Your task to perform on an android device: Clear the cart on bestbuy.com. Search for apple airpods on bestbuy.com, select the first entry, and add it to the cart. Image 0: 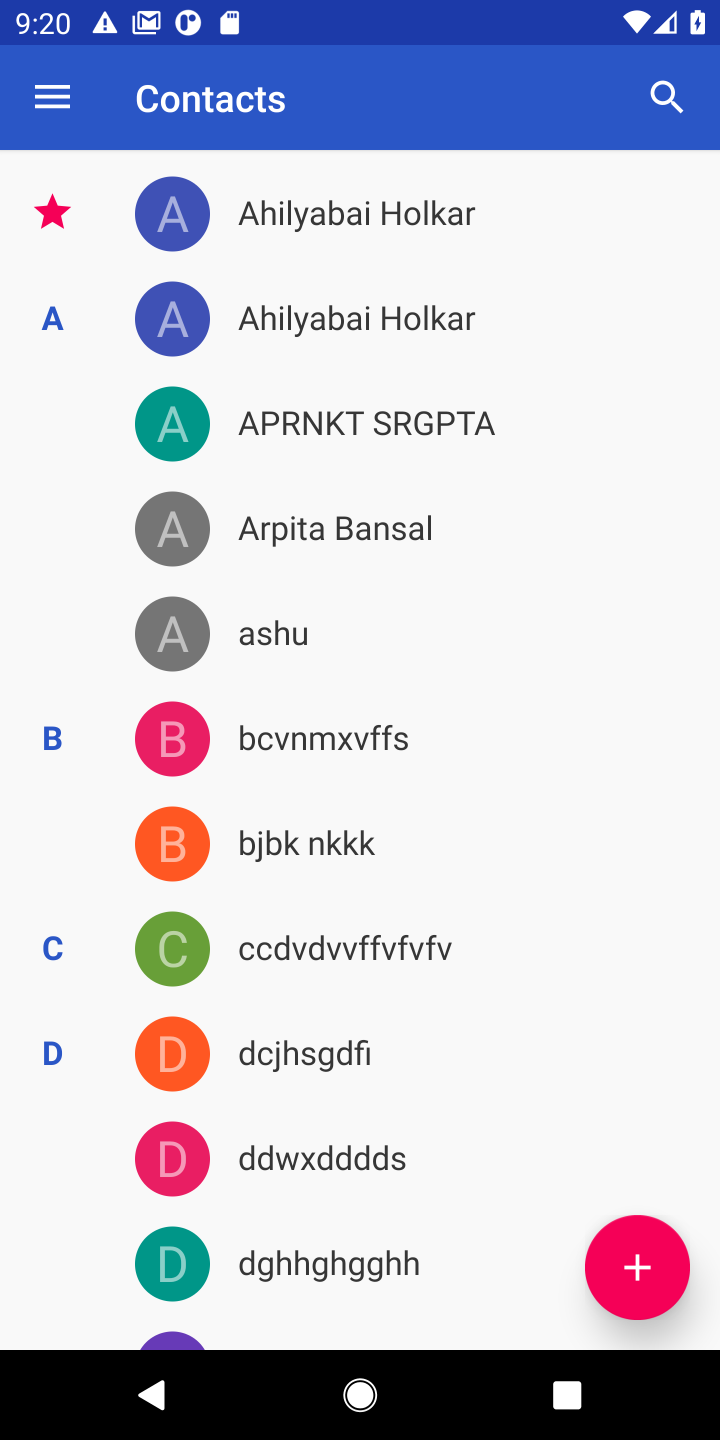
Step 0: press home button
Your task to perform on an android device: Clear the cart on bestbuy.com. Search for apple airpods on bestbuy.com, select the first entry, and add it to the cart. Image 1: 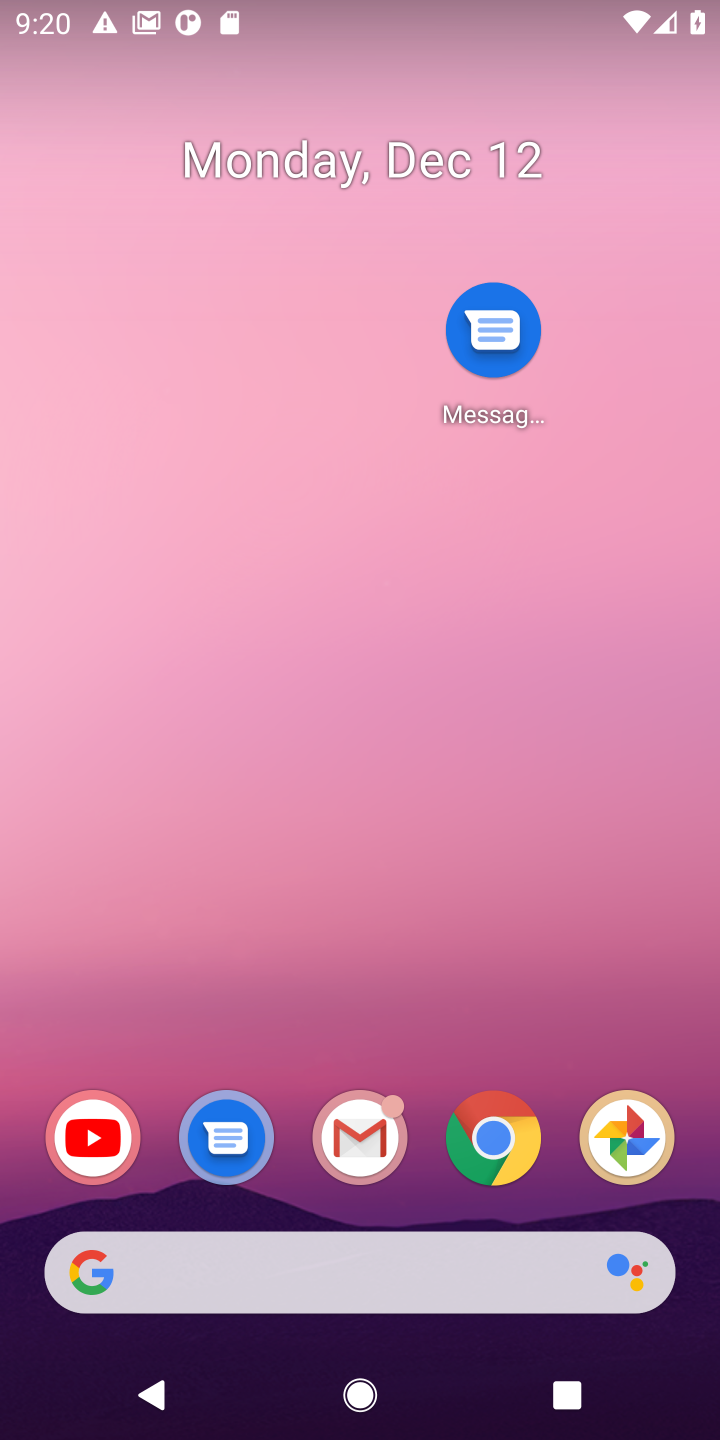
Step 1: drag from (275, 1264) to (275, 216)
Your task to perform on an android device: Clear the cart on bestbuy.com. Search for apple airpods on bestbuy.com, select the first entry, and add it to the cart. Image 2: 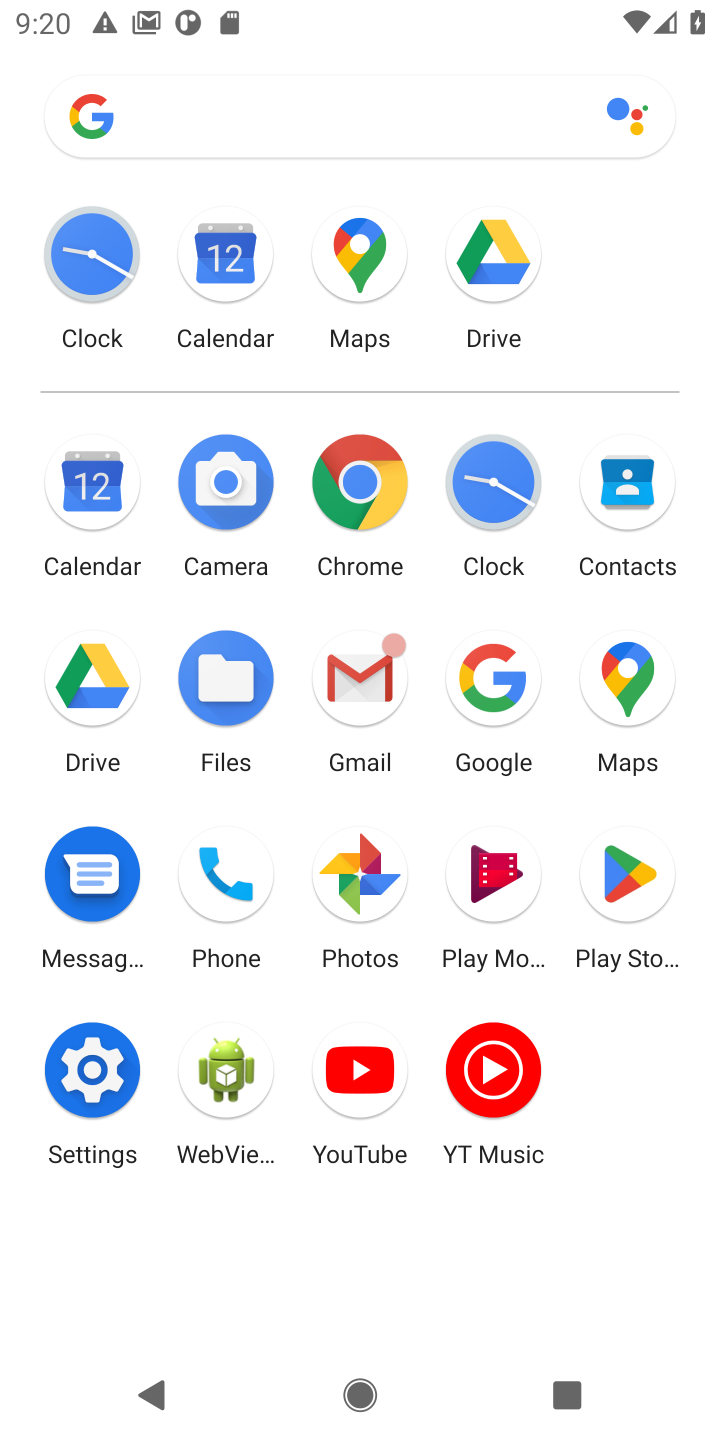
Step 2: click (490, 687)
Your task to perform on an android device: Clear the cart on bestbuy.com. Search for apple airpods on bestbuy.com, select the first entry, and add it to the cart. Image 3: 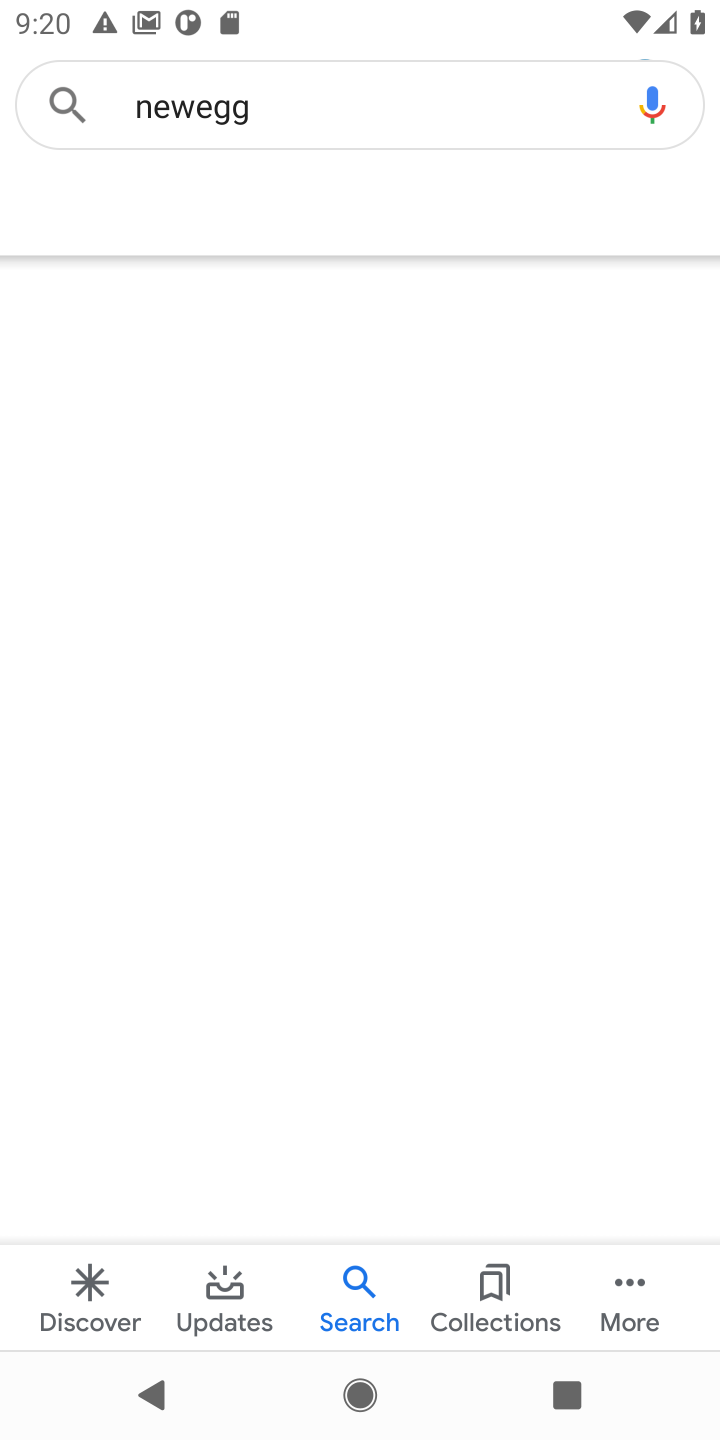
Step 3: click (164, 109)
Your task to perform on an android device: Clear the cart on bestbuy.com. Search for apple airpods on bestbuy.com, select the first entry, and add it to the cart. Image 4: 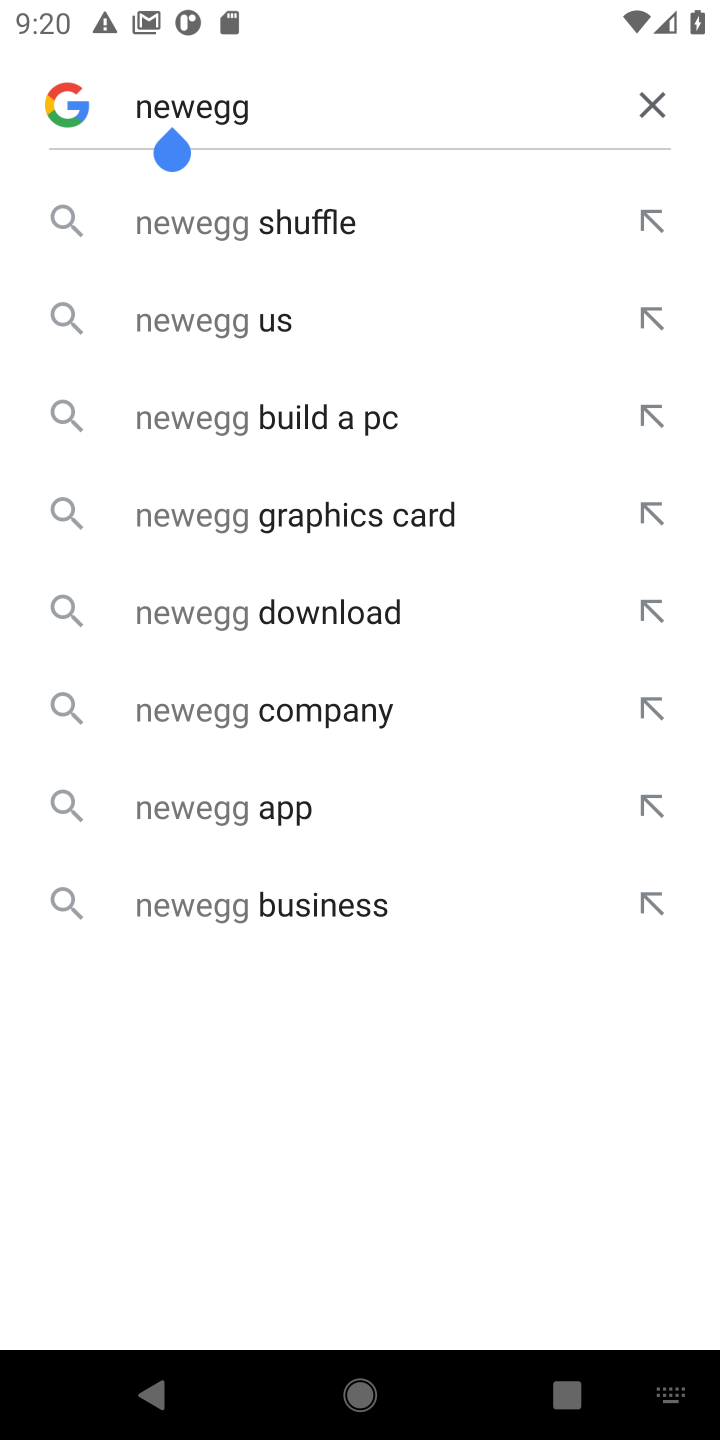
Step 4: click (665, 96)
Your task to perform on an android device: Clear the cart on bestbuy.com. Search for apple airpods on bestbuy.com, select the first entry, and add it to the cart. Image 5: 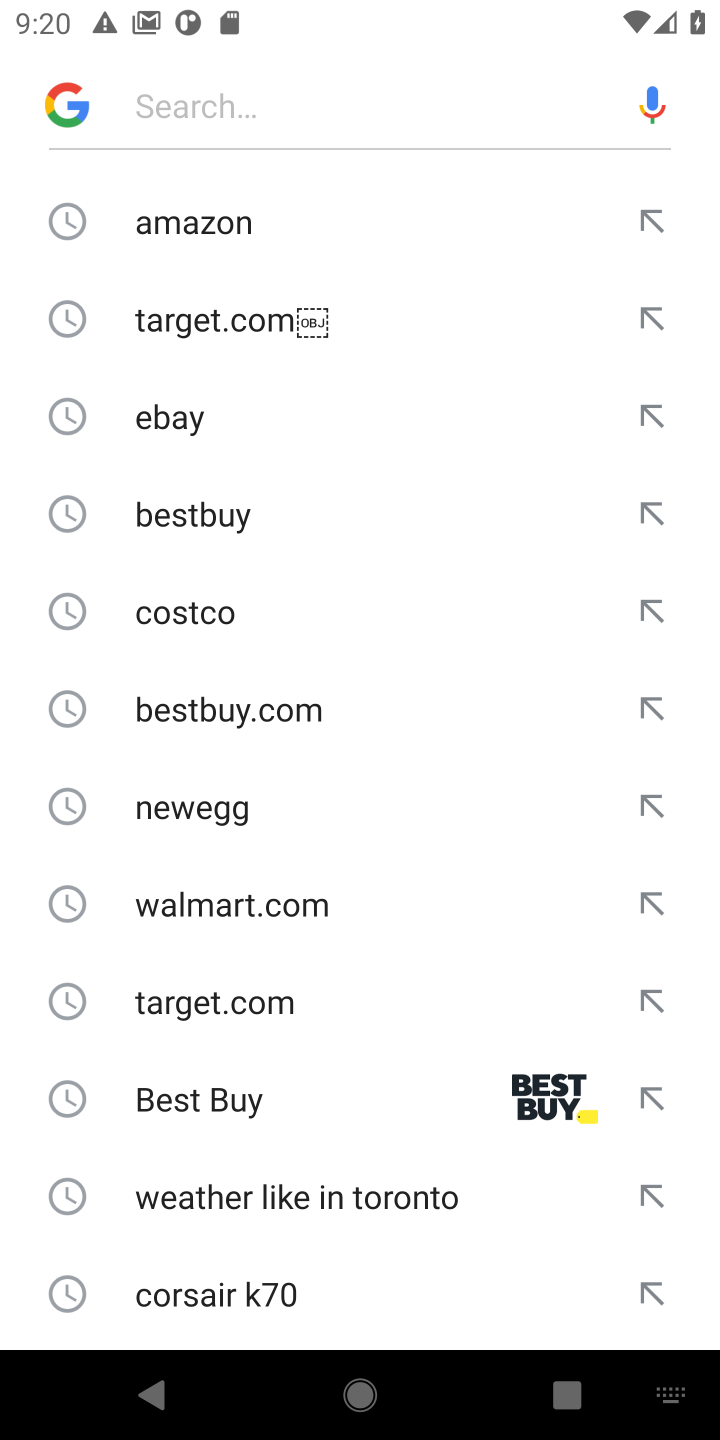
Step 5: click (178, 522)
Your task to perform on an android device: Clear the cart on bestbuy.com. Search for apple airpods on bestbuy.com, select the first entry, and add it to the cart. Image 6: 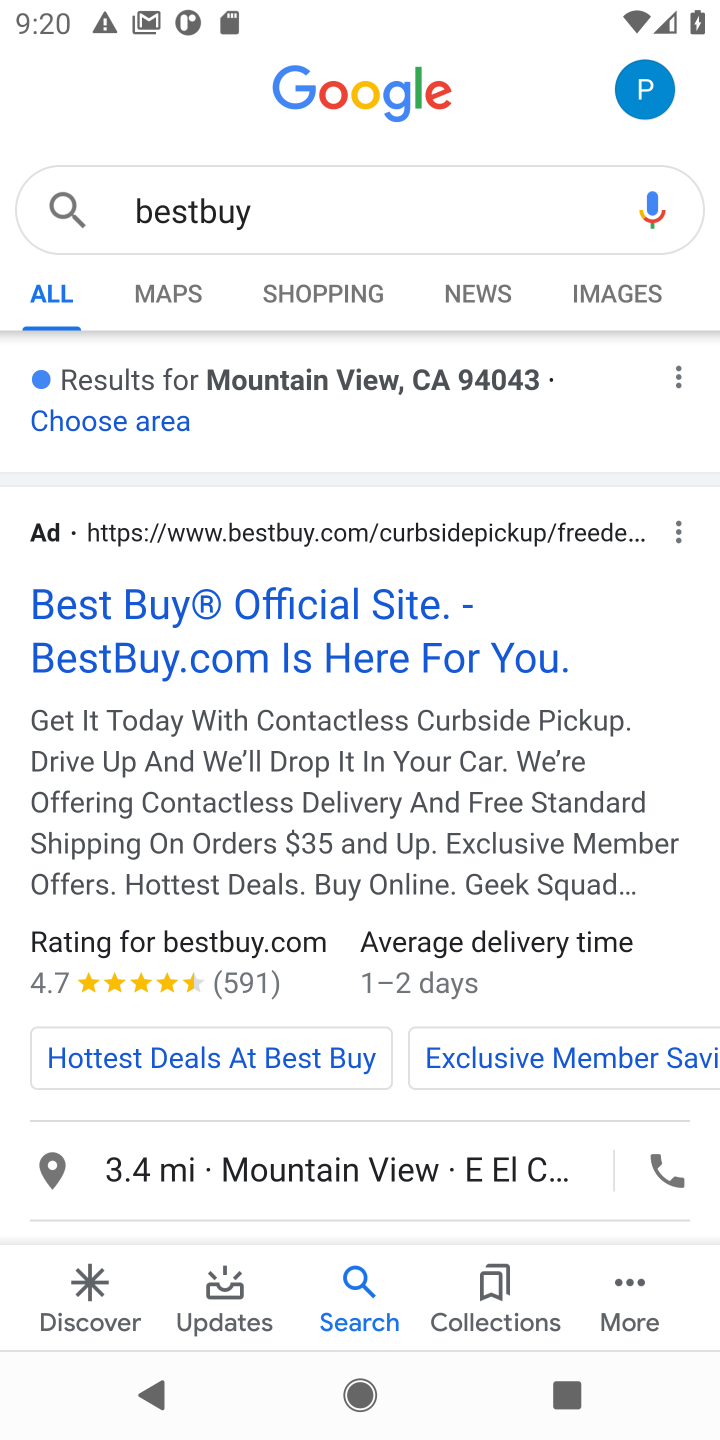
Step 6: click (160, 644)
Your task to perform on an android device: Clear the cart on bestbuy.com. Search for apple airpods on bestbuy.com, select the first entry, and add it to the cart. Image 7: 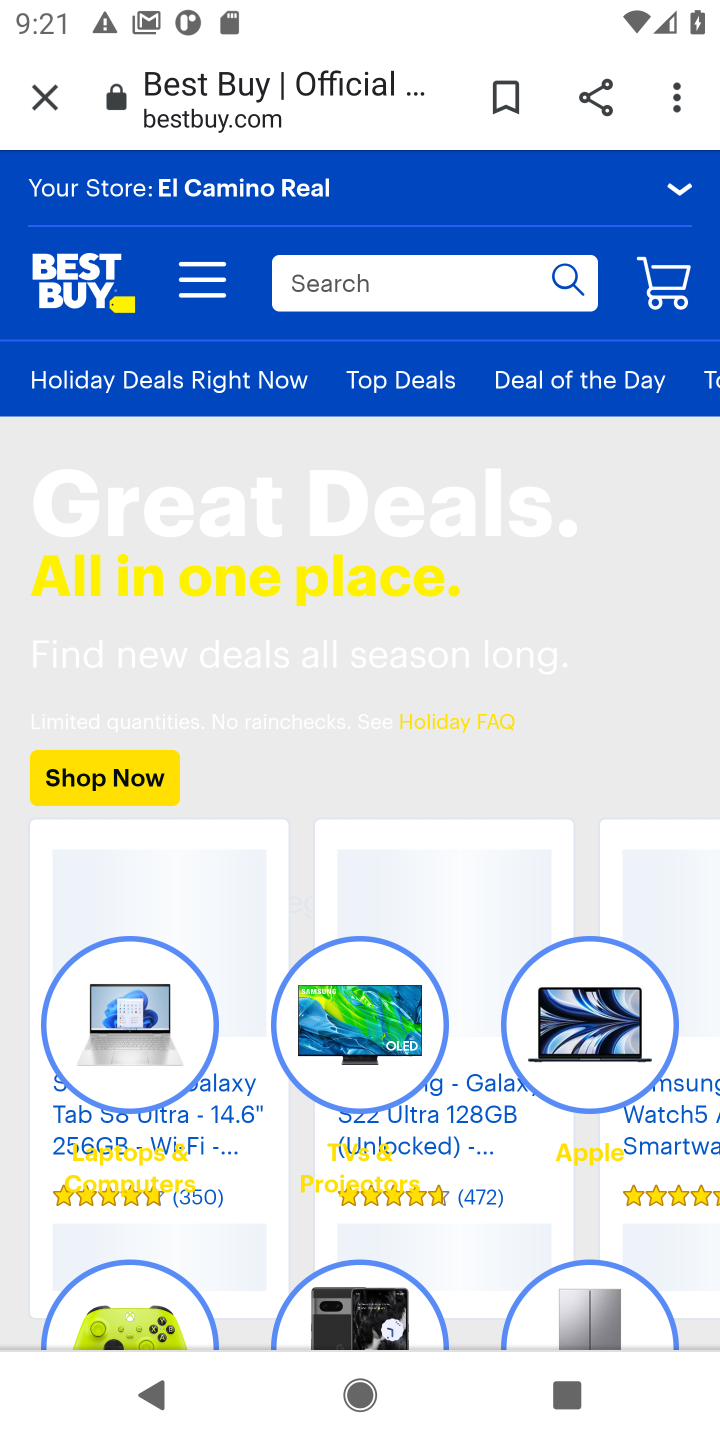
Step 7: click (355, 290)
Your task to perform on an android device: Clear the cart on bestbuy.com. Search for apple airpods on bestbuy.com, select the first entry, and add it to the cart. Image 8: 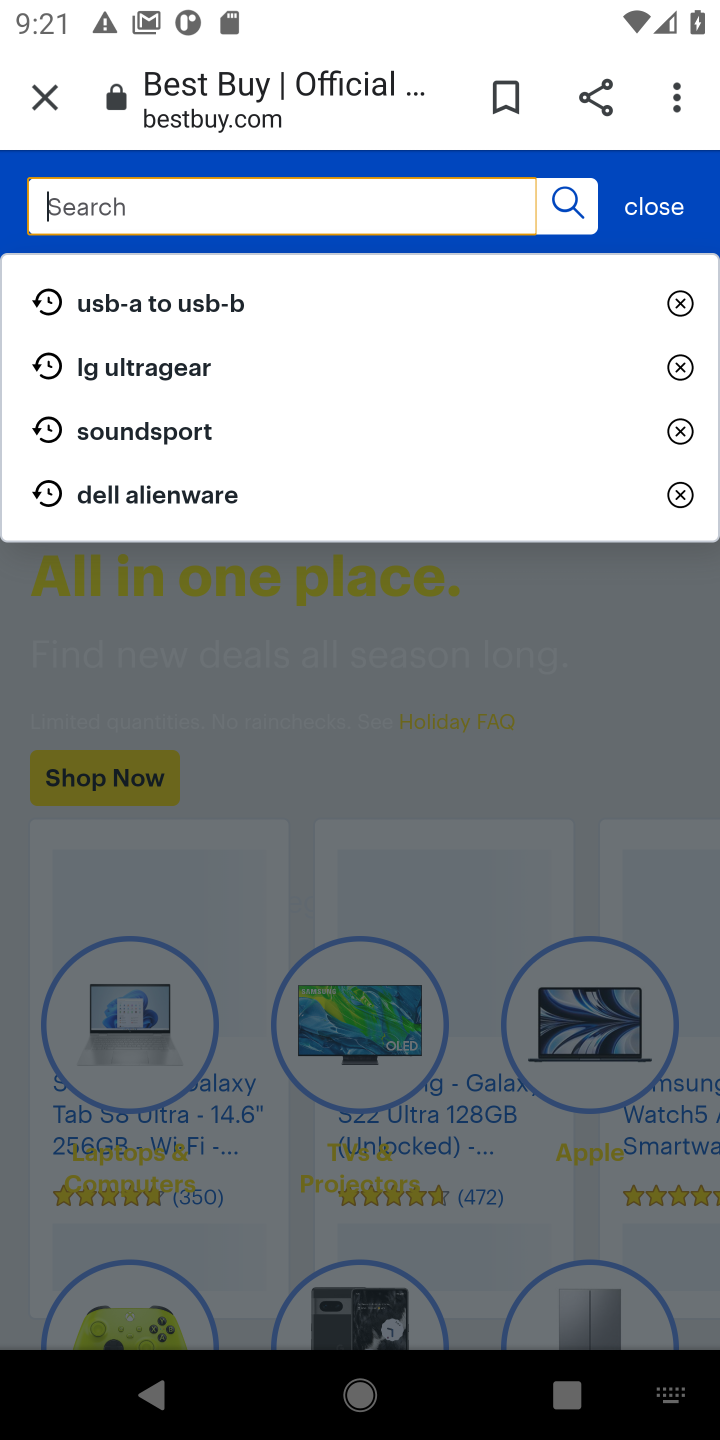
Step 8: click (506, 631)
Your task to perform on an android device: Clear the cart on bestbuy.com. Search for apple airpods on bestbuy.com, select the first entry, and add it to the cart. Image 9: 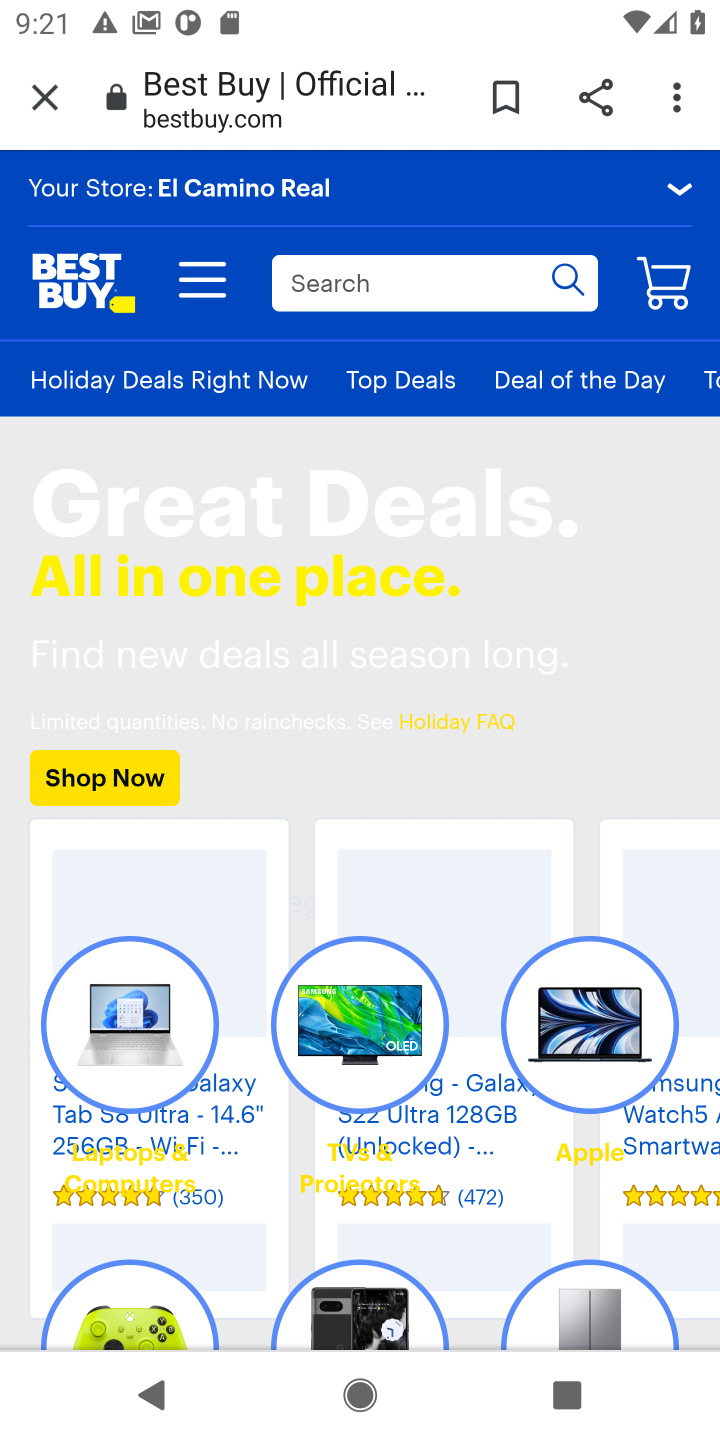
Step 9: click (383, 290)
Your task to perform on an android device: Clear the cart on bestbuy.com. Search for apple airpods on bestbuy.com, select the first entry, and add it to the cart. Image 10: 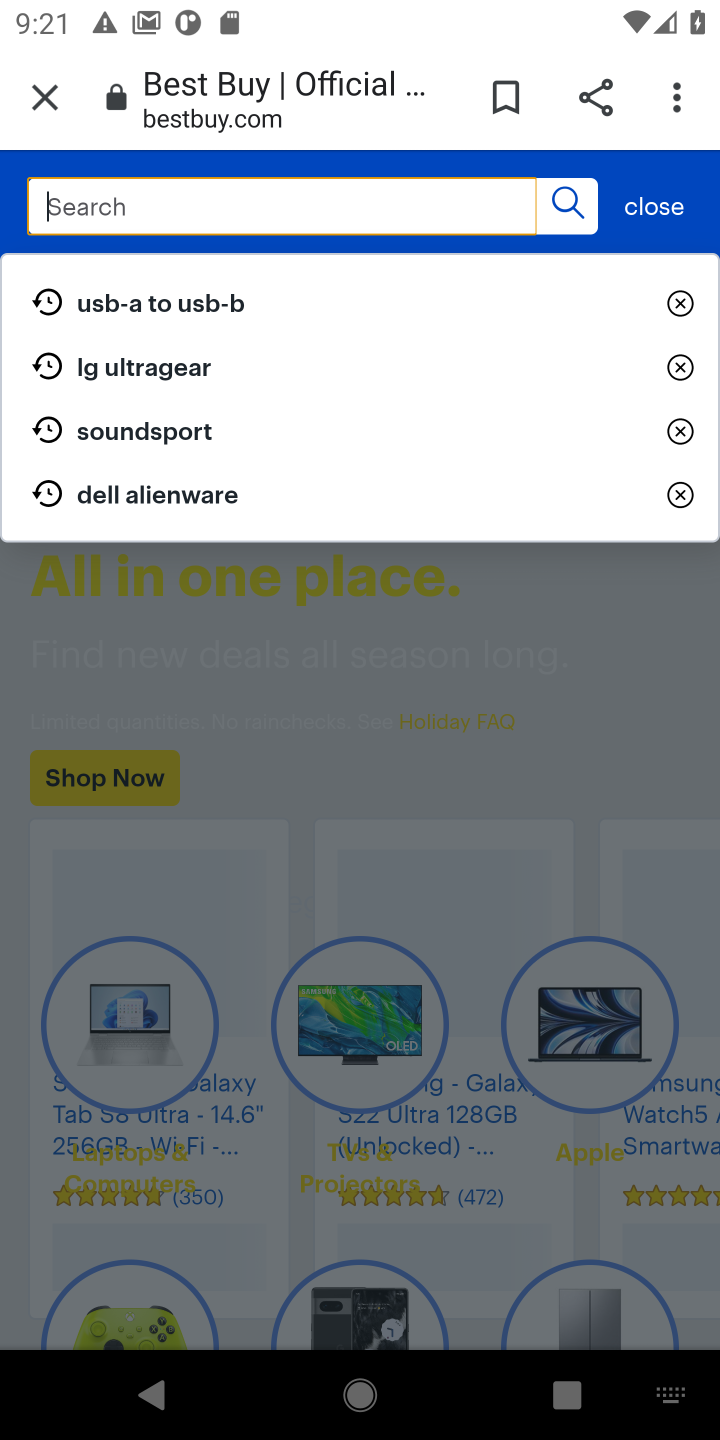
Step 10: click (206, 623)
Your task to perform on an android device: Clear the cart on bestbuy.com. Search for apple airpods on bestbuy.com, select the first entry, and add it to the cart. Image 11: 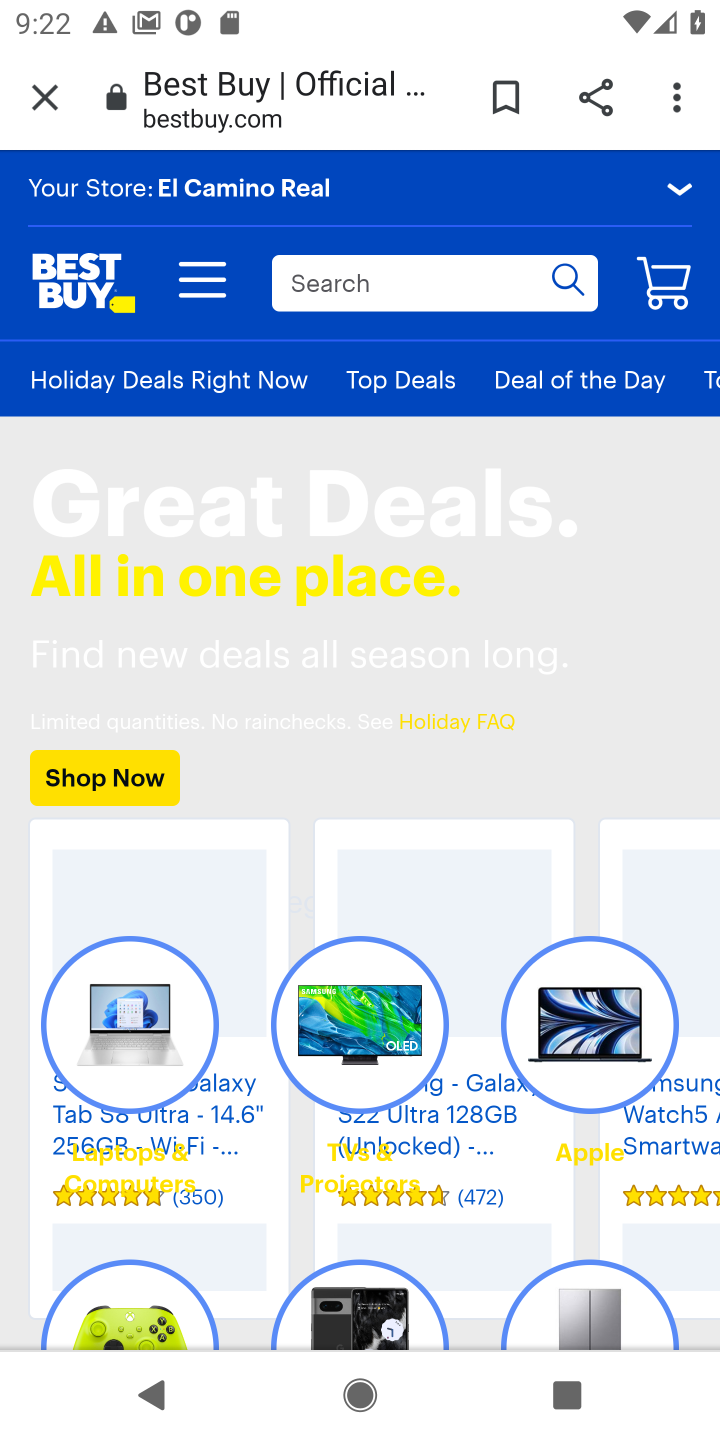
Step 11: click (347, 278)
Your task to perform on an android device: Clear the cart on bestbuy.com. Search for apple airpods on bestbuy.com, select the first entry, and add it to the cart. Image 12: 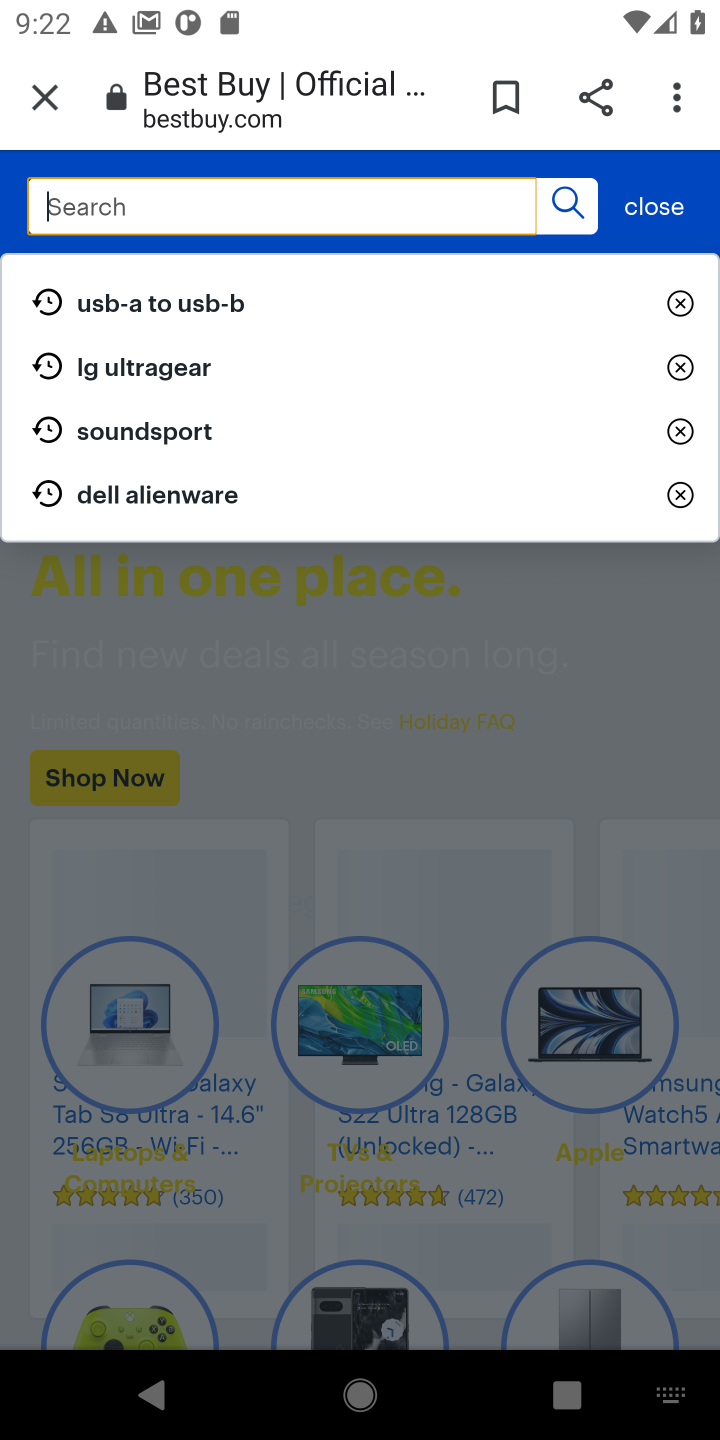
Step 12: type "apple airpods"
Your task to perform on an android device: Clear the cart on bestbuy.com. Search for apple airpods on bestbuy.com, select the first entry, and add it to the cart. Image 13: 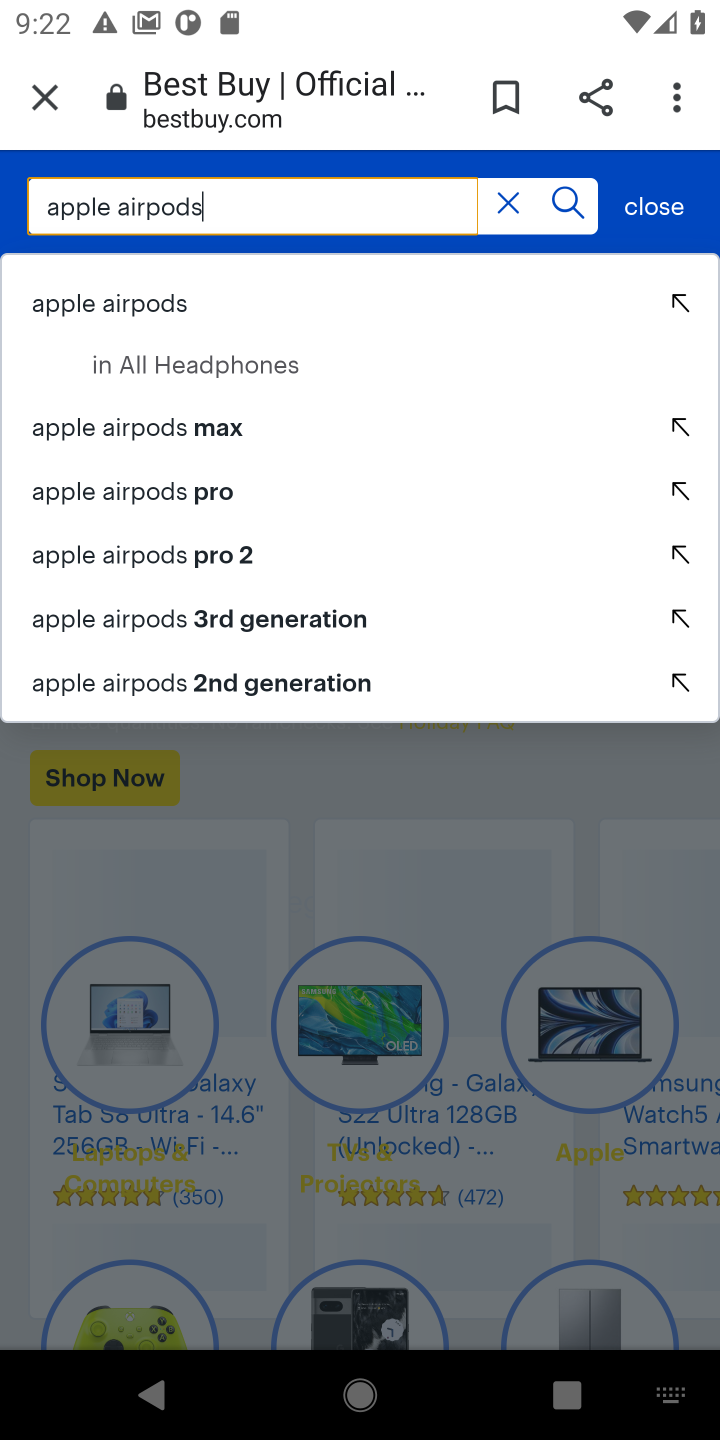
Step 13: click (55, 305)
Your task to perform on an android device: Clear the cart on bestbuy.com. Search for apple airpods on bestbuy.com, select the first entry, and add it to the cart. Image 14: 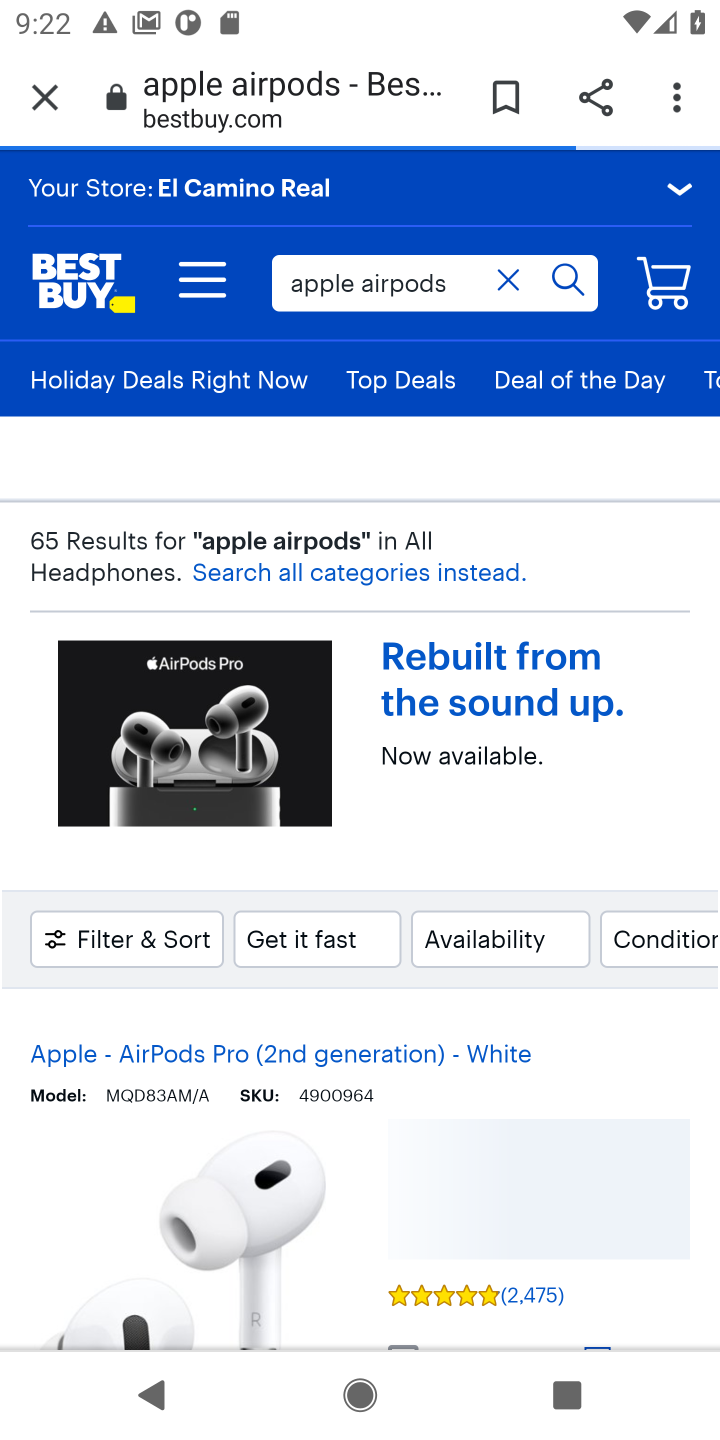
Step 14: drag from (368, 1053) to (374, 662)
Your task to perform on an android device: Clear the cart on bestbuy.com. Search for apple airpods on bestbuy.com, select the first entry, and add it to the cart. Image 15: 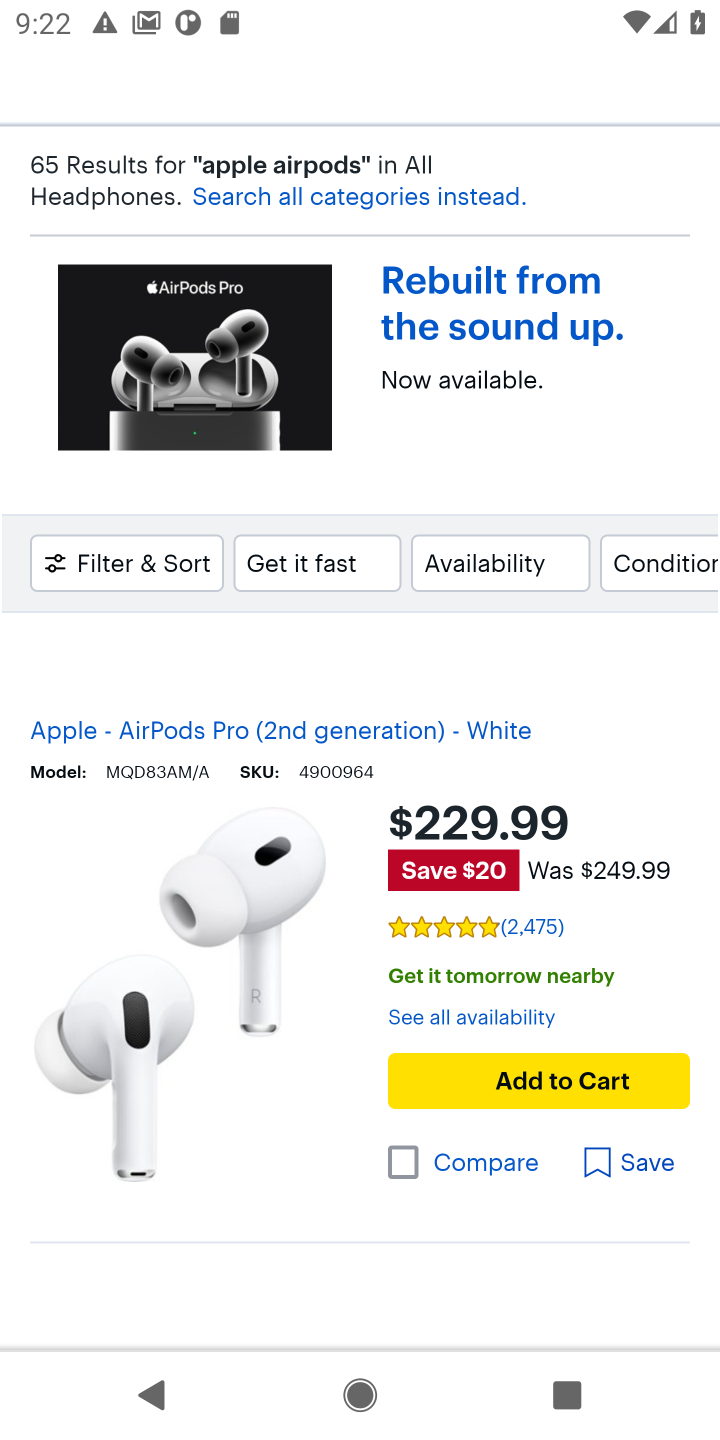
Step 15: click (538, 1063)
Your task to perform on an android device: Clear the cart on bestbuy.com. Search for apple airpods on bestbuy.com, select the first entry, and add it to the cart. Image 16: 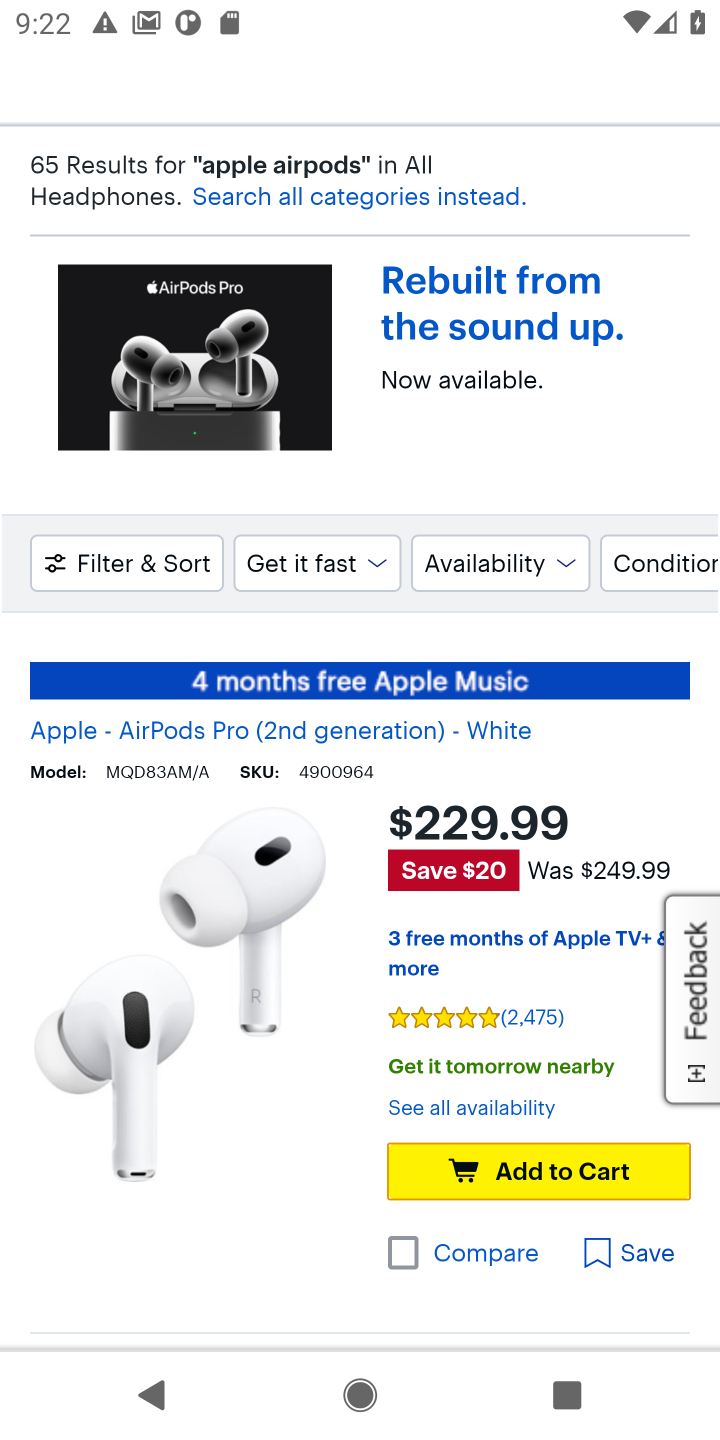
Step 16: click (592, 1176)
Your task to perform on an android device: Clear the cart on bestbuy.com. Search for apple airpods on bestbuy.com, select the first entry, and add it to the cart. Image 17: 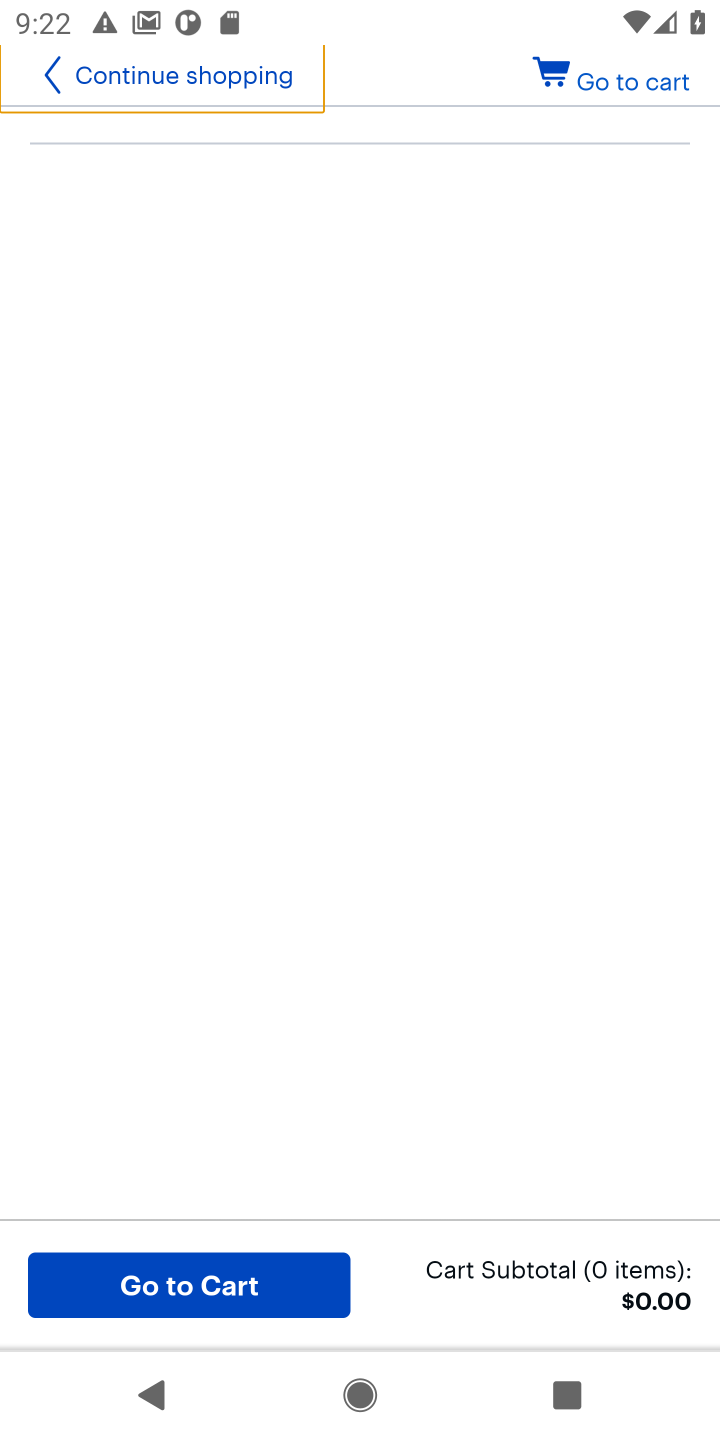
Step 17: click (245, 1289)
Your task to perform on an android device: Clear the cart on bestbuy.com. Search for apple airpods on bestbuy.com, select the first entry, and add it to the cart. Image 18: 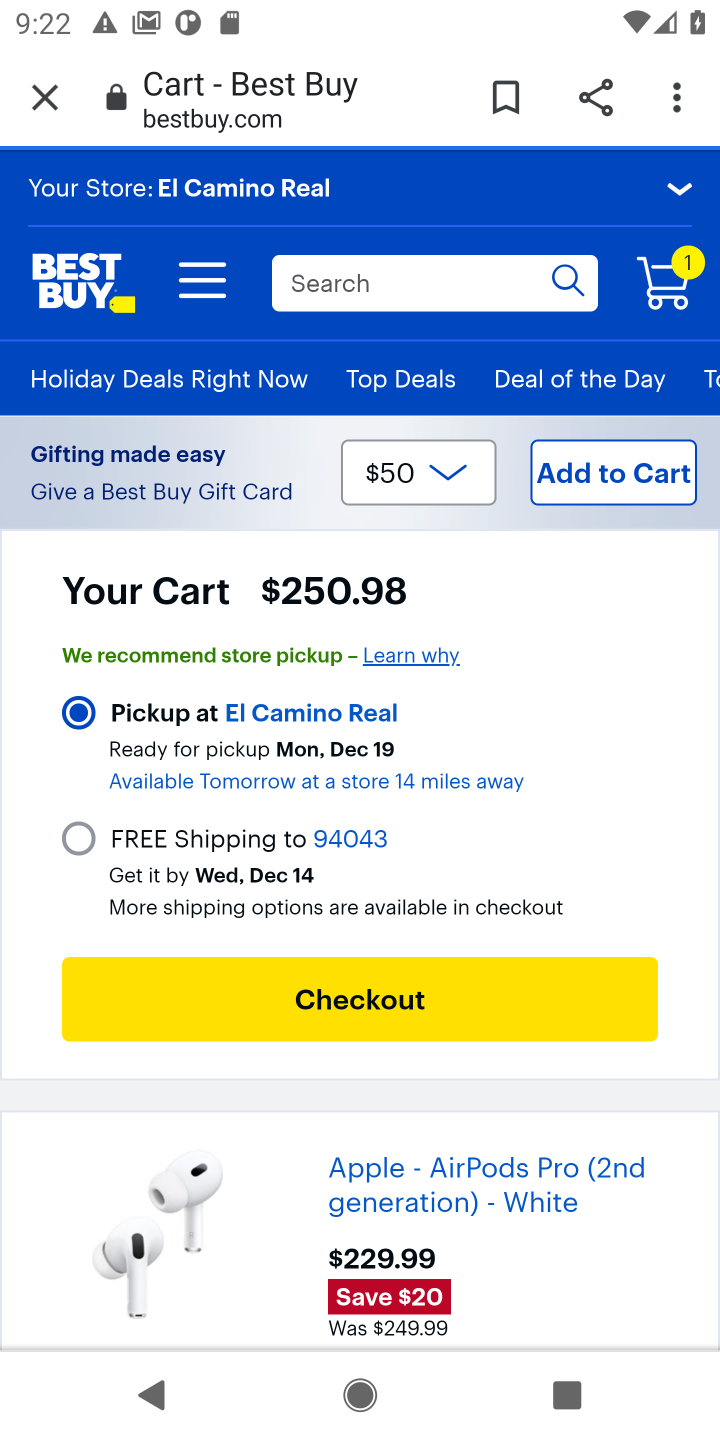
Step 18: click (438, 998)
Your task to perform on an android device: Clear the cart on bestbuy.com. Search for apple airpods on bestbuy.com, select the first entry, and add it to the cart. Image 19: 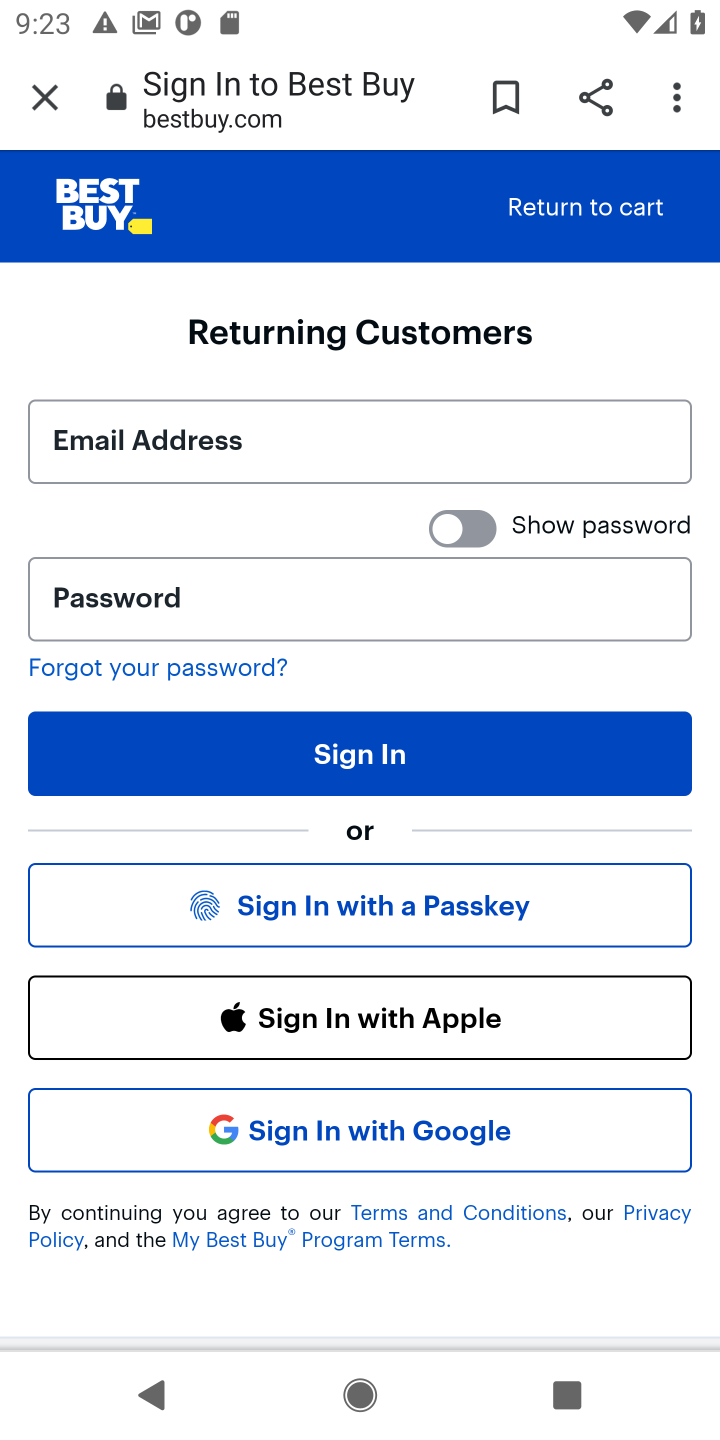
Step 19: task complete